Your task to perform on an android device: Open Chrome and go to settings Image 0: 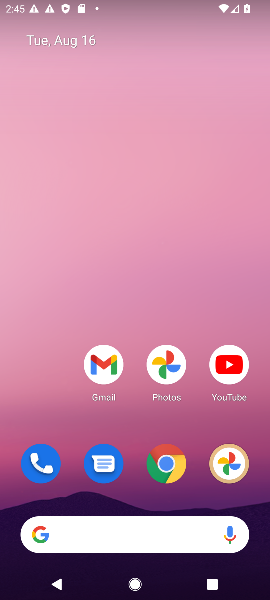
Step 0: click (168, 470)
Your task to perform on an android device: Open Chrome and go to settings Image 1: 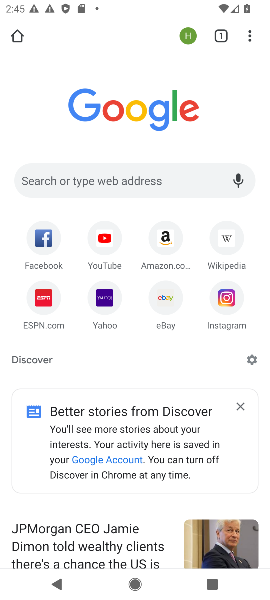
Step 1: click (247, 39)
Your task to perform on an android device: Open Chrome and go to settings Image 2: 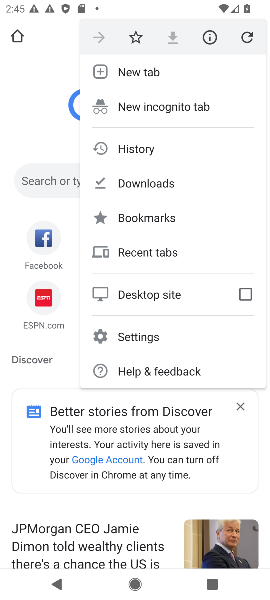
Step 2: click (123, 331)
Your task to perform on an android device: Open Chrome and go to settings Image 3: 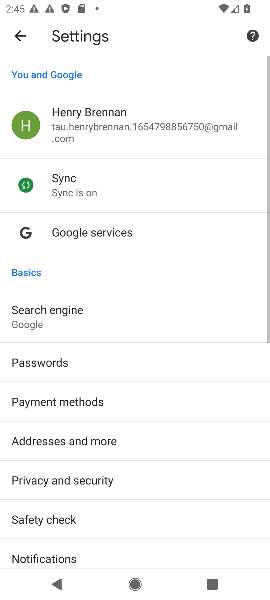
Step 3: task complete